Your task to perform on an android device: change text size in settings app Image 0: 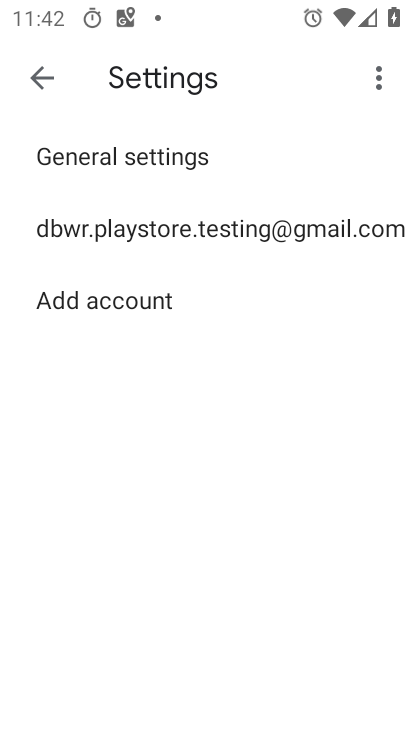
Step 0: press home button
Your task to perform on an android device: change text size in settings app Image 1: 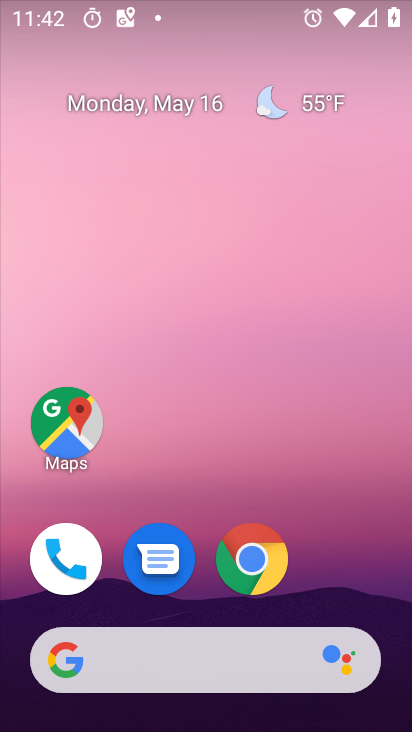
Step 1: drag from (366, 512) to (304, 1)
Your task to perform on an android device: change text size in settings app Image 2: 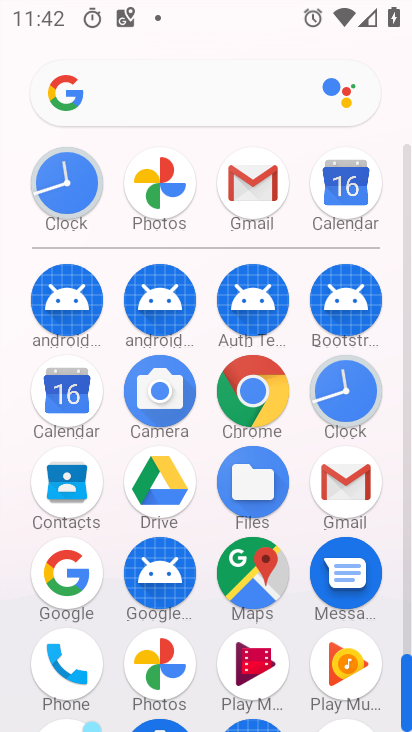
Step 2: drag from (234, 573) to (315, 155)
Your task to perform on an android device: change text size in settings app Image 3: 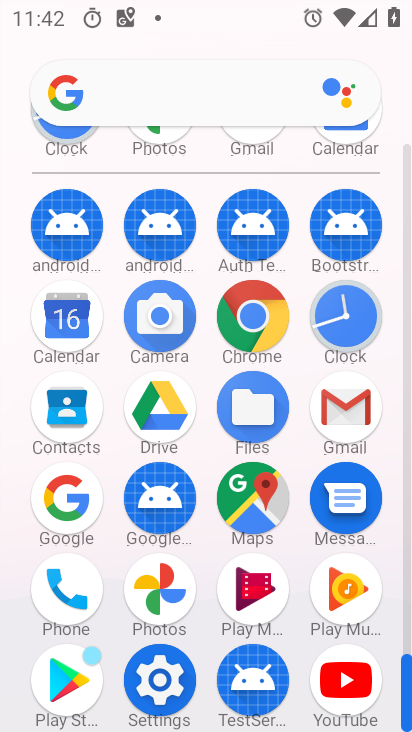
Step 3: click (175, 636)
Your task to perform on an android device: change text size in settings app Image 4: 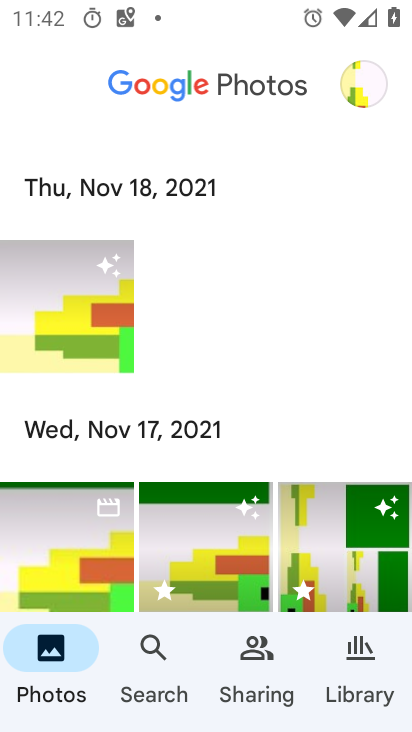
Step 4: press home button
Your task to perform on an android device: change text size in settings app Image 5: 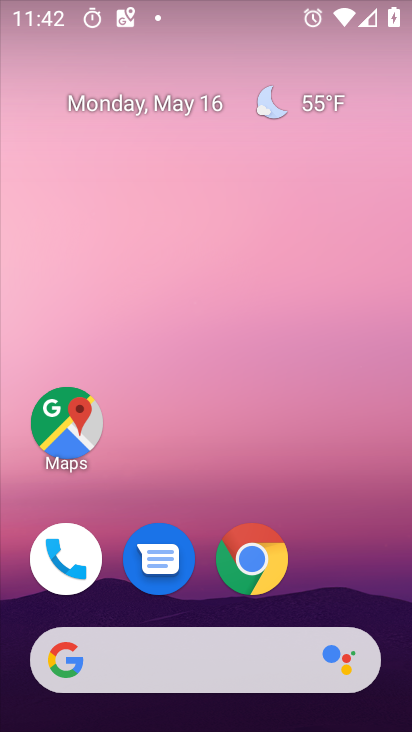
Step 5: drag from (294, 589) to (322, 59)
Your task to perform on an android device: change text size in settings app Image 6: 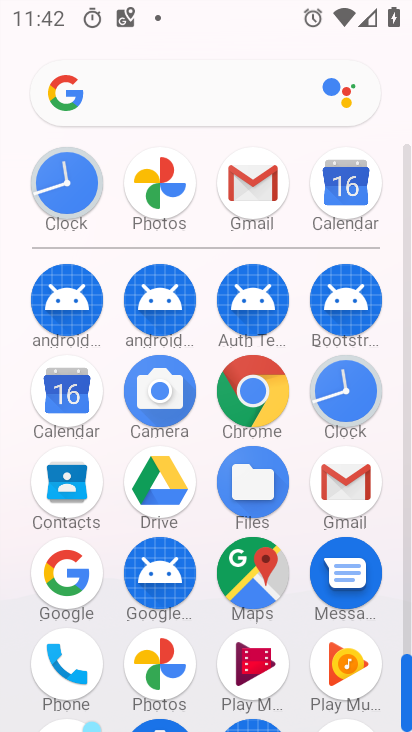
Step 6: drag from (197, 628) to (272, 98)
Your task to perform on an android device: change text size in settings app Image 7: 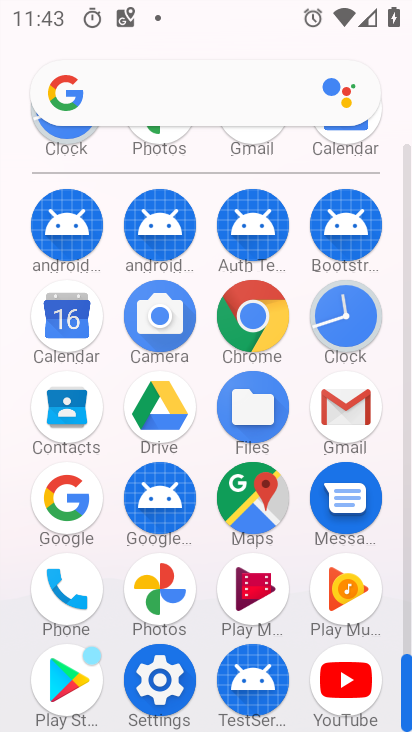
Step 7: click (155, 676)
Your task to perform on an android device: change text size in settings app Image 8: 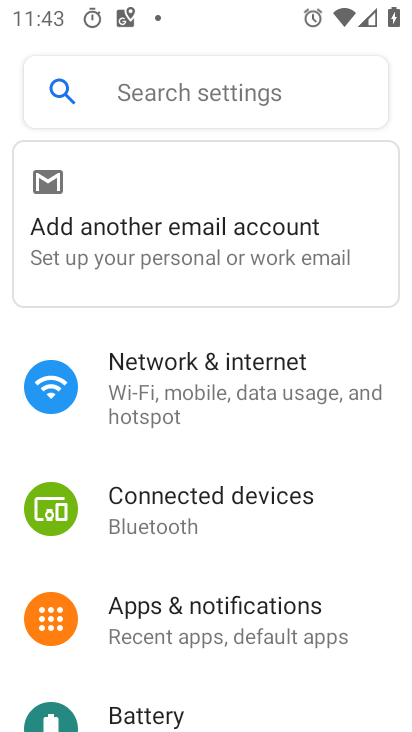
Step 8: drag from (213, 625) to (342, 190)
Your task to perform on an android device: change text size in settings app Image 9: 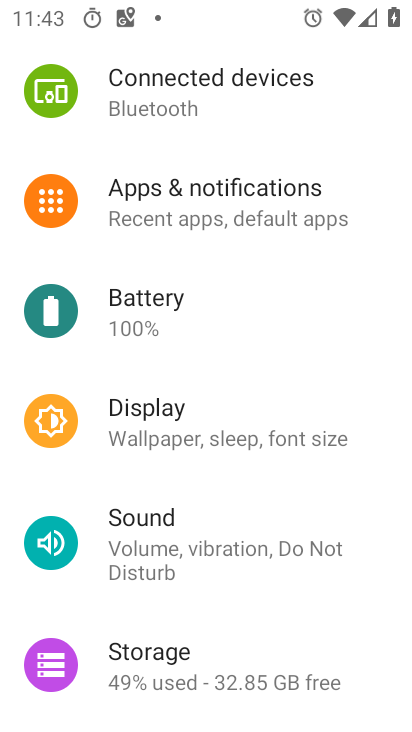
Step 9: click (165, 433)
Your task to perform on an android device: change text size in settings app Image 10: 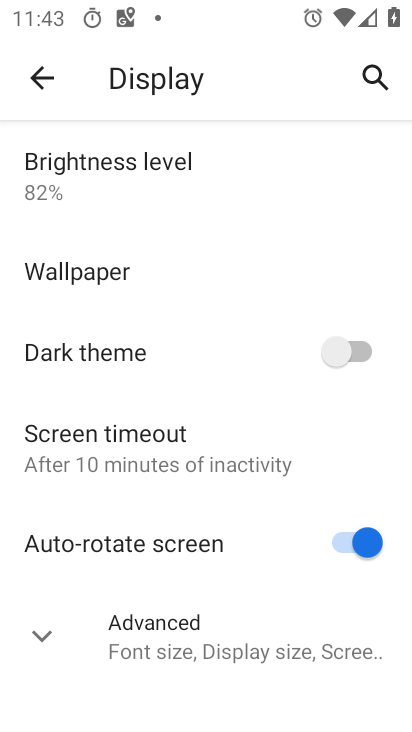
Step 10: click (204, 464)
Your task to perform on an android device: change text size in settings app Image 11: 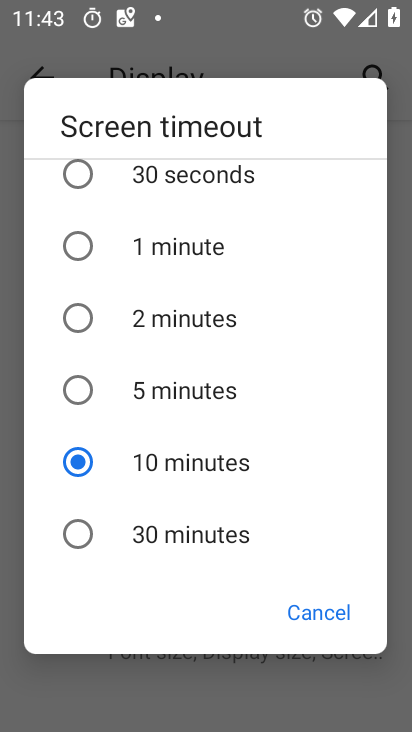
Step 11: drag from (162, 535) to (313, 603)
Your task to perform on an android device: change text size in settings app Image 12: 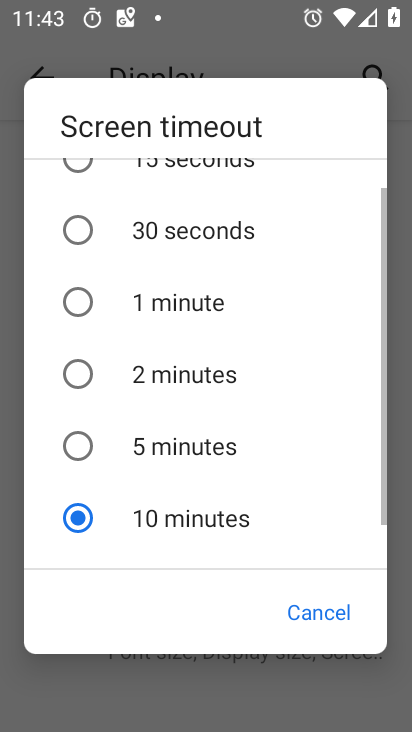
Step 12: click (321, 600)
Your task to perform on an android device: change text size in settings app Image 13: 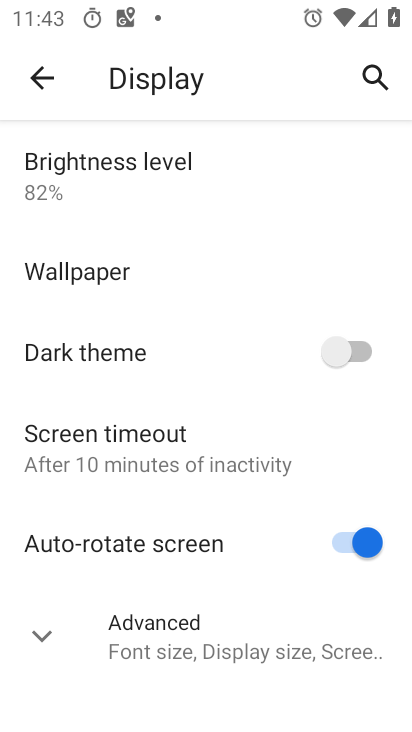
Step 13: click (321, 606)
Your task to perform on an android device: change text size in settings app Image 14: 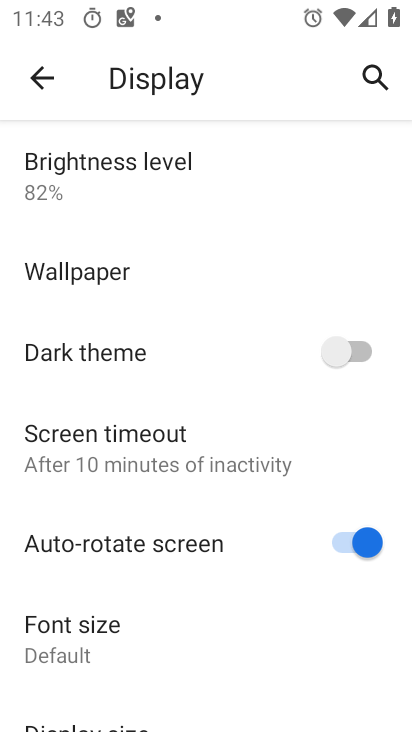
Step 14: click (85, 636)
Your task to perform on an android device: change text size in settings app Image 15: 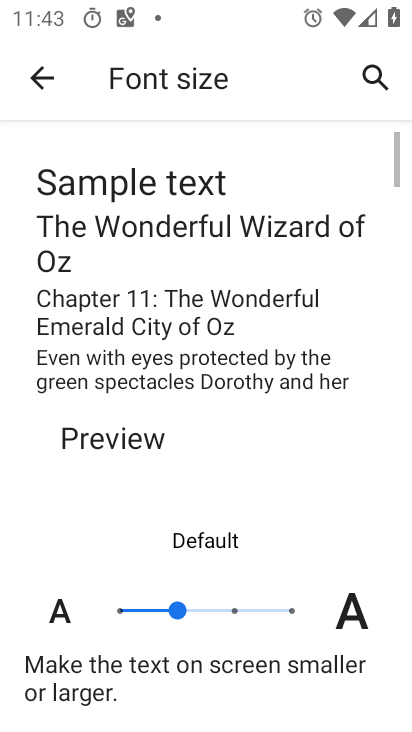
Step 15: click (128, 611)
Your task to perform on an android device: change text size in settings app Image 16: 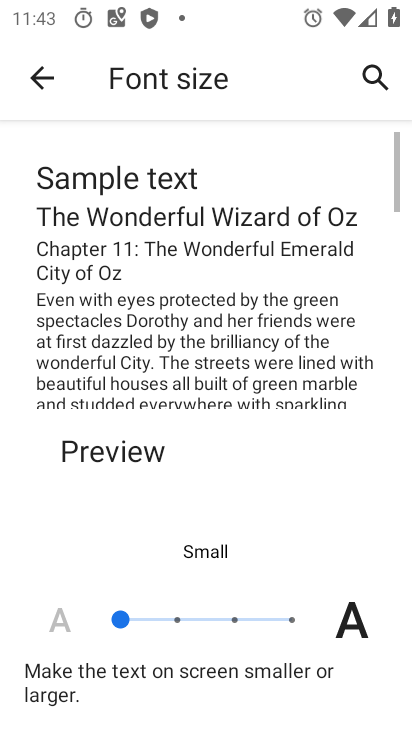
Step 16: task complete